Your task to perform on an android device: Show me productivity apps on the Play Store Image 0: 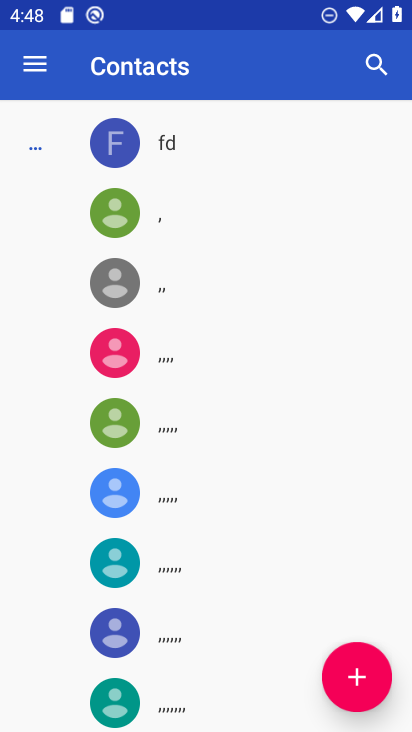
Step 0: press home button
Your task to perform on an android device: Show me productivity apps on the Play Store Image 1: 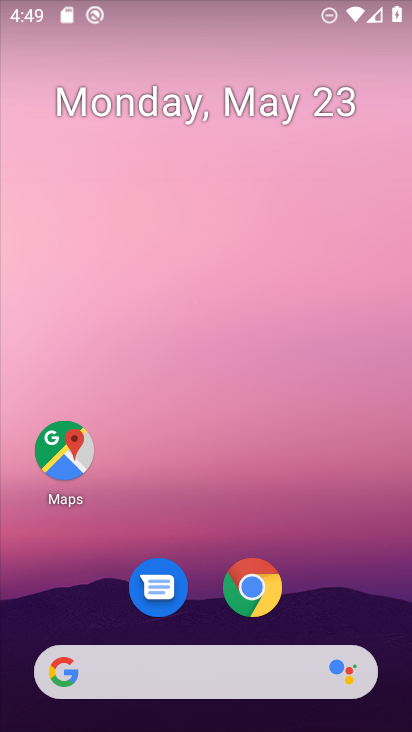
Step 1: drag from (208, 626) to (254, 154)
Your task to perform on an android device: Show me productivity apps on the Play Store Image 2: 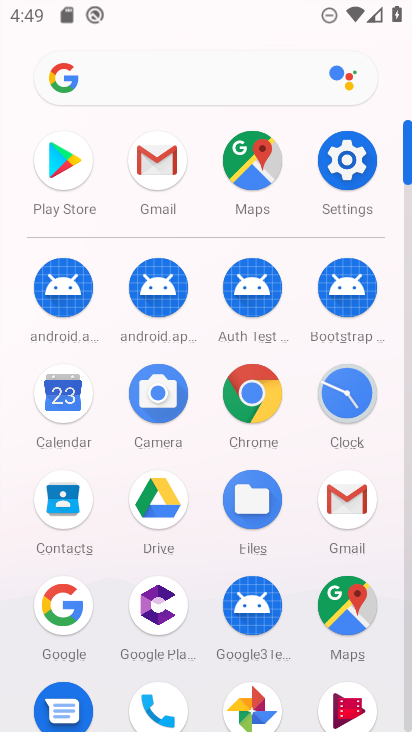
Step 2: drag from (205, 631) to (231, 225)
Your task to perform on an android device: Show me productivity apps on the Play Store Image 3: 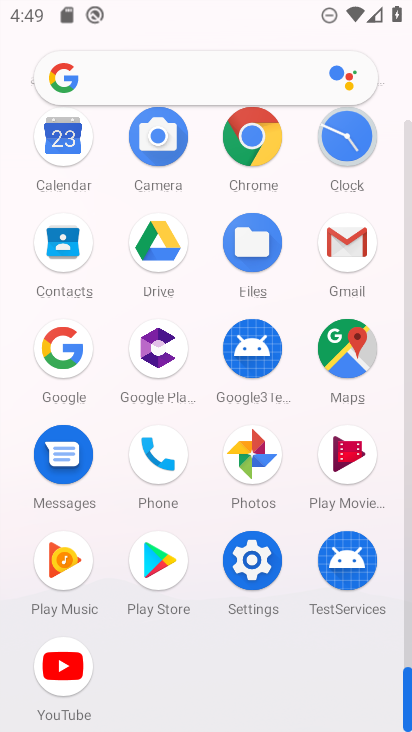
Step 3: click (148, 581)
Your task to perform on an android device: Show me productivity apps on the Play Store Image 4: 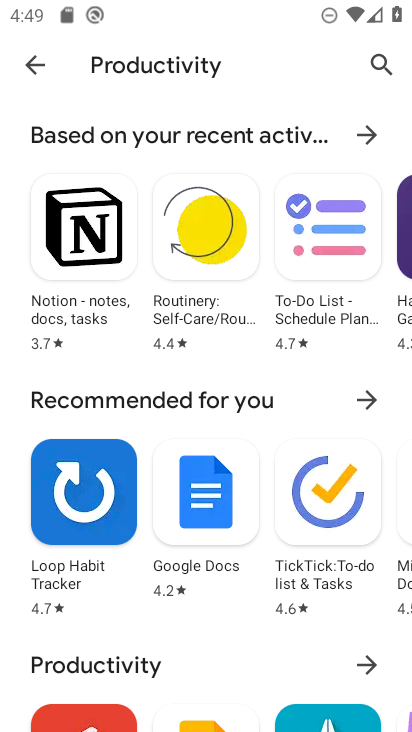
Step 4: task complete